Your task to perform on an android device: Check the weather Image 0: 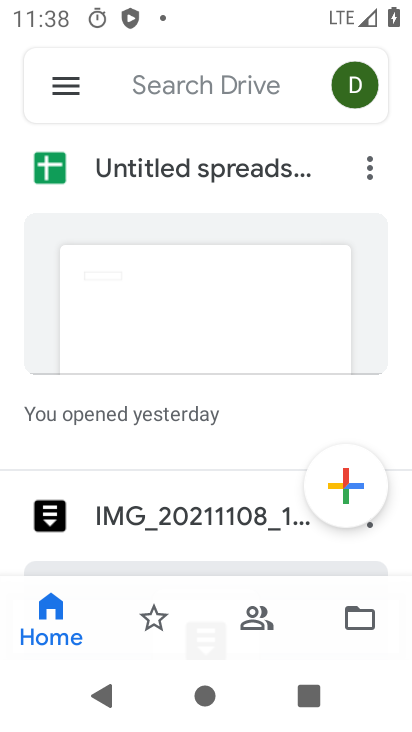
Step 0: press back button
Your task to perform on an android device: Check the weather Image 1: 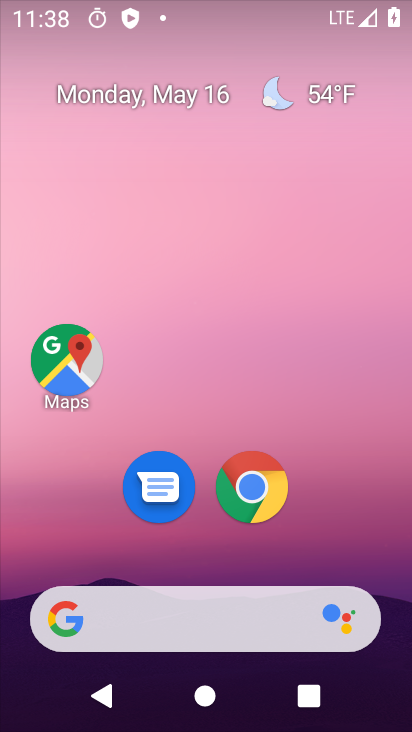
Step 1: click (291, 87)
Your task to perform on an android device: Check the weather Image 2: 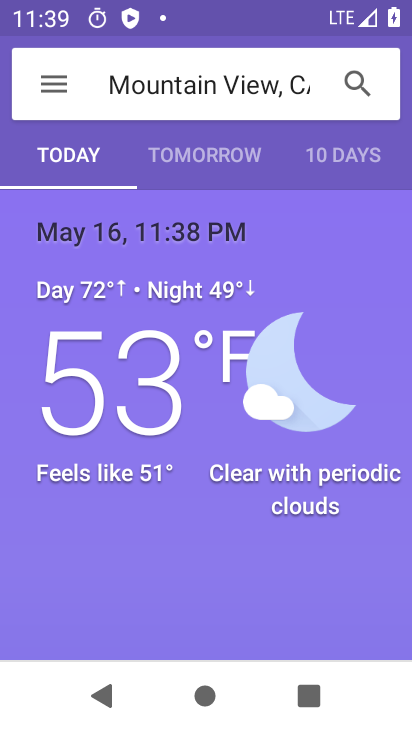
Step 2: task complete